Your task to perform on an android device: uninstall "Instagram" Image 0: 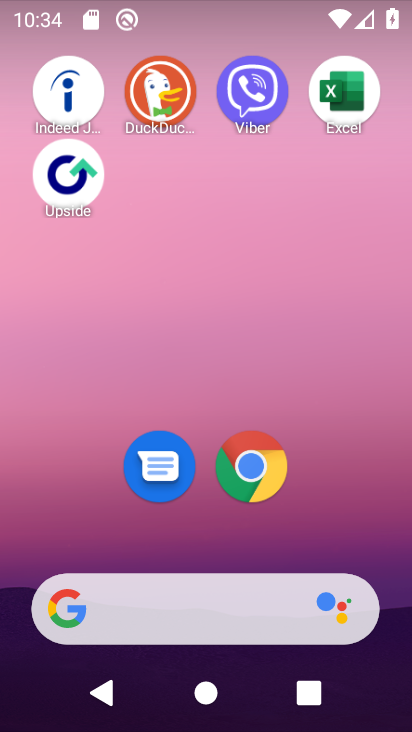
Step 0: drag from (233, 709) to (213, 222)
Your task to perform on an android device: uninstall "Instagram" Image 1: 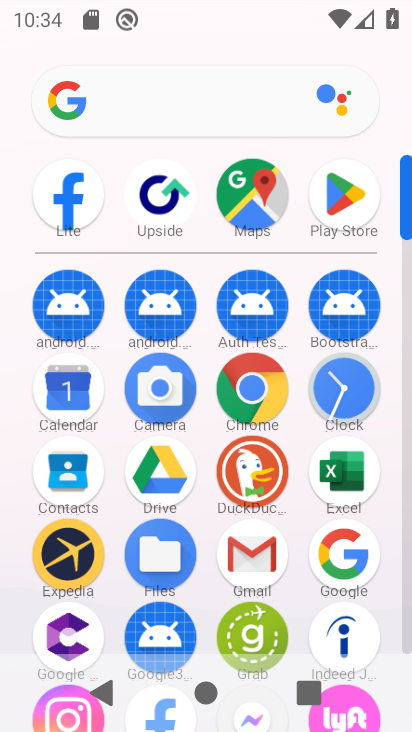
Step 1: click (333, 187)
Your task to perform on an android device: uninstall "Instagram" Image 2: 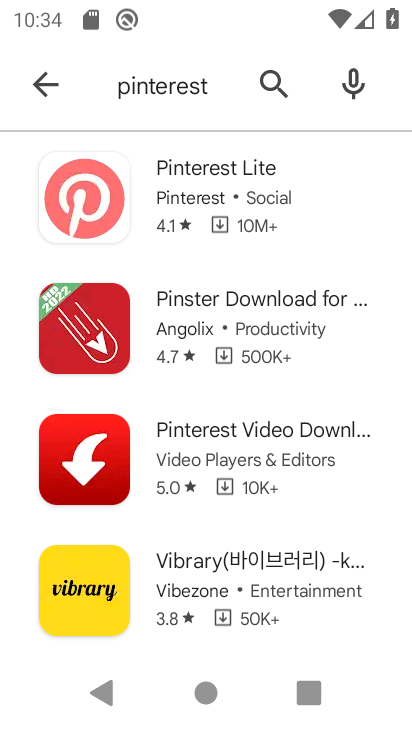
Step 2: click (273, 85)
Your task to perform on an android device: uninstall "Instagram" Image 3: 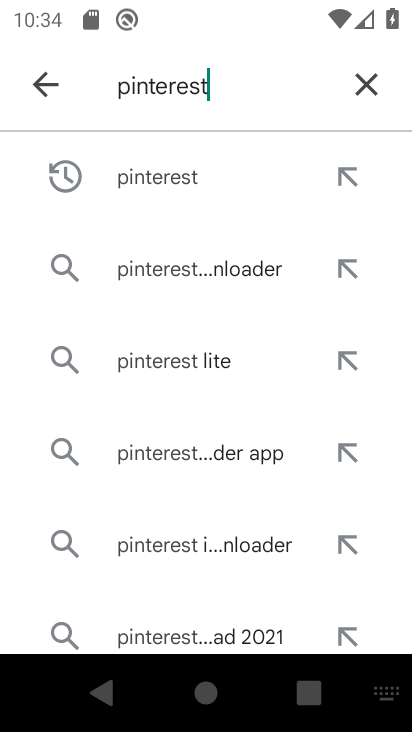
Step 3: click (356, 79)
Your task to perform on an android device: uninstall "Instagram" Image 4: 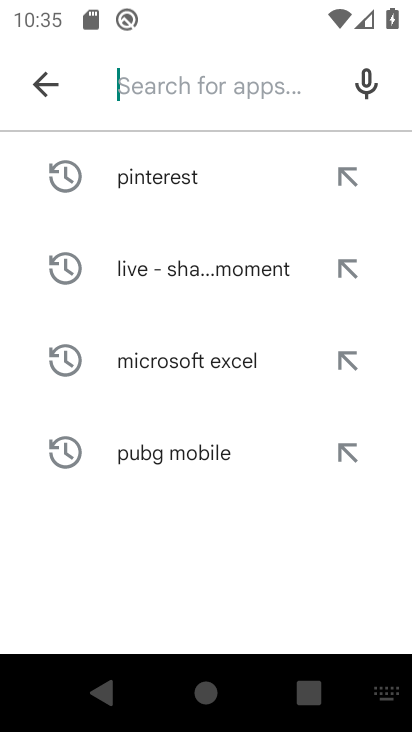
Step 4: type "Instagram "
Your task to perform on an android device: uninstall "Instagram" Image 5: 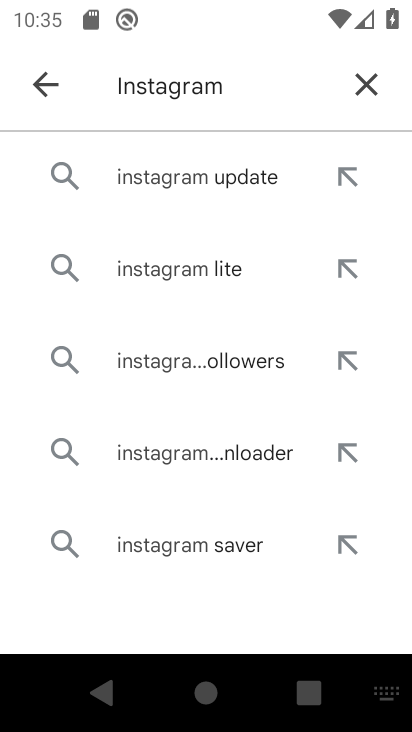
Step 5: click (170, 182)
Your task to perform on an android device: uninstall "Instagram" Image 6: 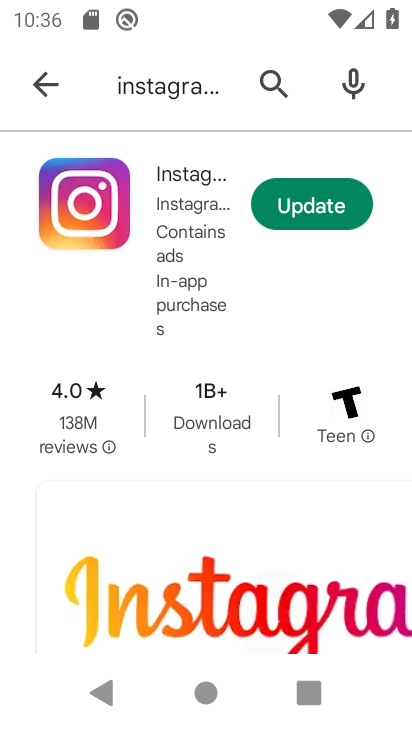
Step 6: task complete